Your task to perform on an android device: turn on improve location accuracy Image 0: 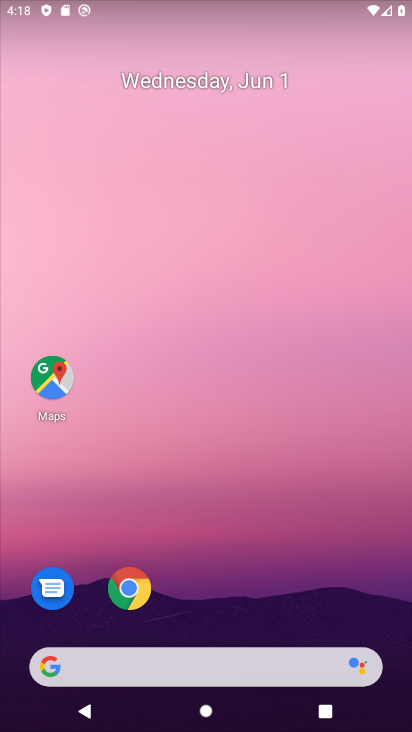
Step 0: drag from (242, 584) to (243, 201)
Your task to perform on an android device: turn on improve location accuracy Image 1: 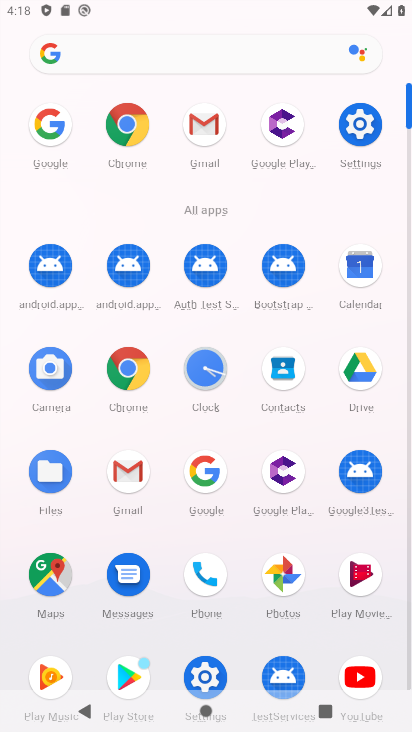
Step 1: click (358, 124)
Your task to perform on an android device: turn on improve location accuracy Image 2: 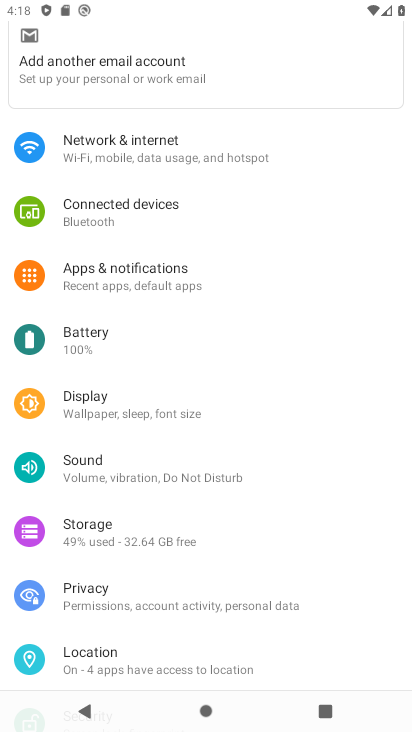
Step 2: drag from (133, 580) to (164, 521)
Your task to perform on an android device: turn on improve location accuracy Image 3: 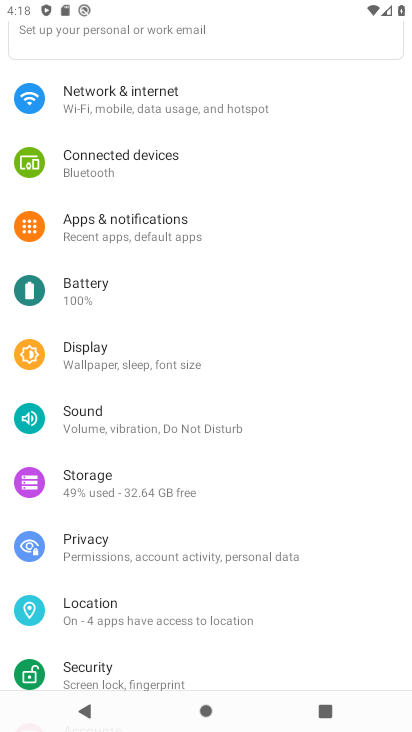
Step 3: click (121, 610)
Your task to perform on an android device: turn on improve location accuracy Image 4: 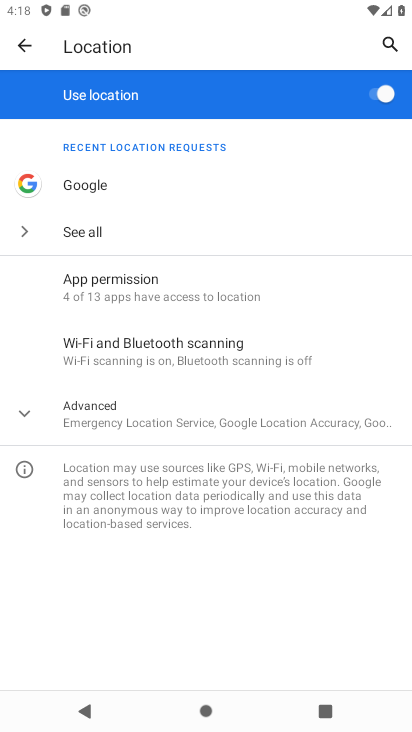
Step 4: click (149, 421)
Your task to perform on an android device: turn on improve location accuracy Image 5: 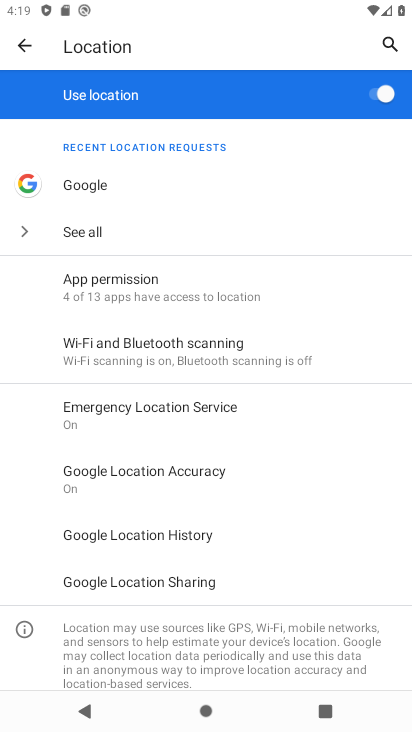
Step 5: click (152, 471)
Your task to perform on an android device: turn on improve location accuracy Image 6: 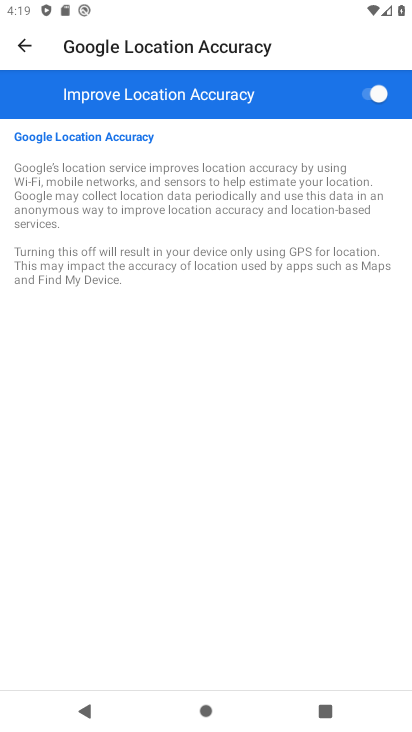
Step 6: task complete